Your task to perform on an android device: see sites visited before in the chrome app Image 0: 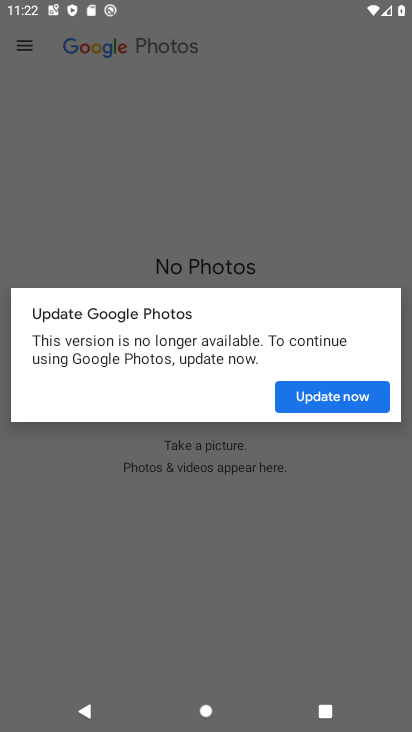
Step 0: press home button
Your task to perform on an android device: see sites visited before in the chrome app Image 1: 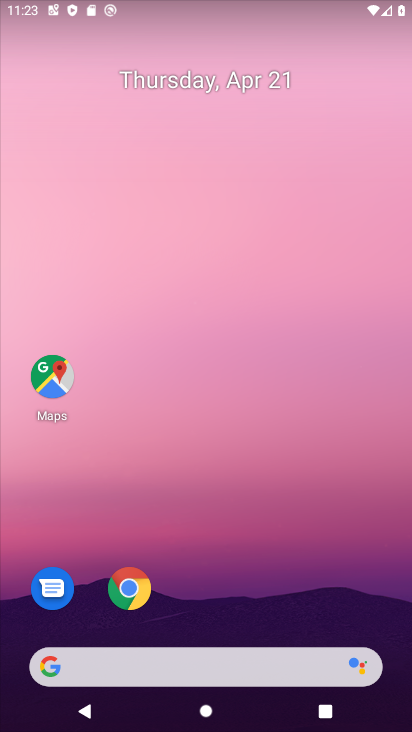
Step 1: click (136, 594)
Your task to perform on an android device: see sites visited before in the chrome app Image 2: 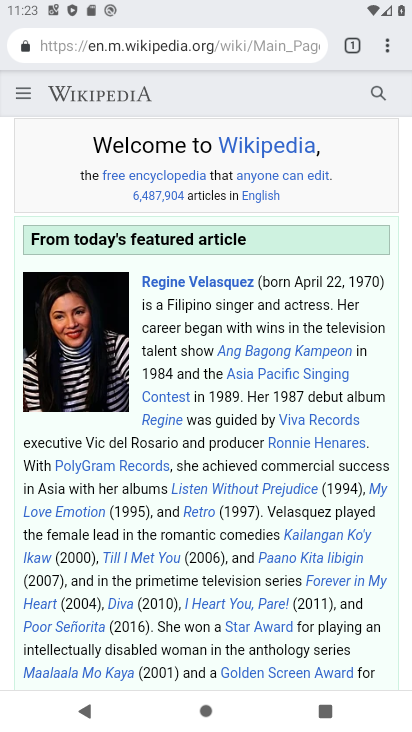
Step 2: click (385, 42)
Your task to perform on an android device: see sites visited before in the chrome app Image 3: 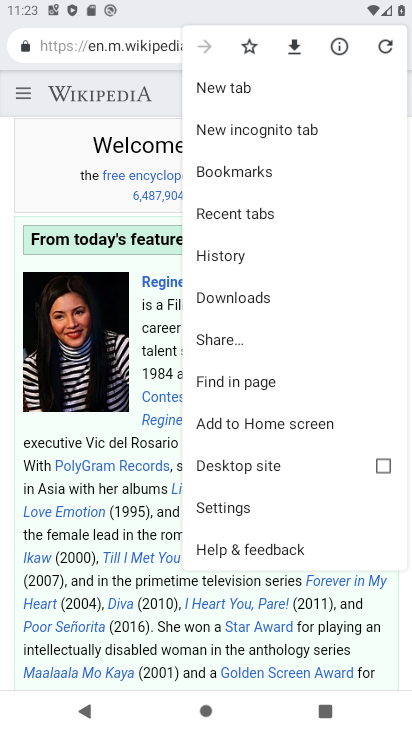
Step 3: click (206, 251)
Your task to perform on an android device: see sites visited before in the chrome app Image 4: 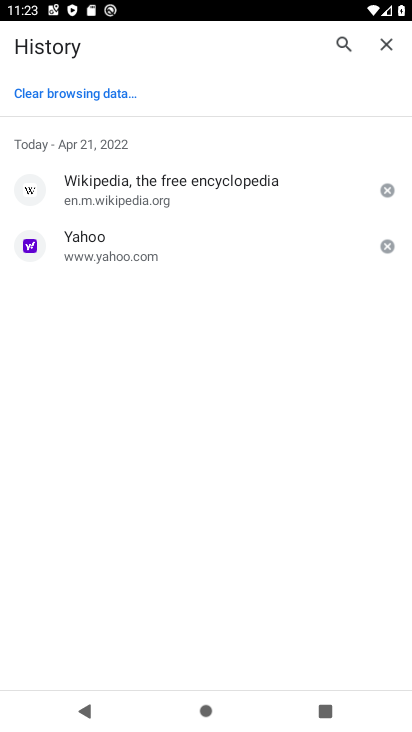
Step 4: task complete